Your task to perform on an android device: turn off smart reply in the gmail app Image 0: 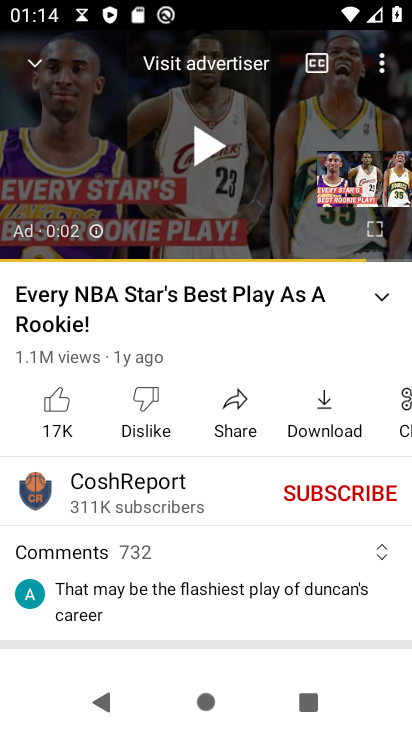
Step 0: press home button
Your task to perform on an android device: turn off smart reply in the gmail app Image 1: 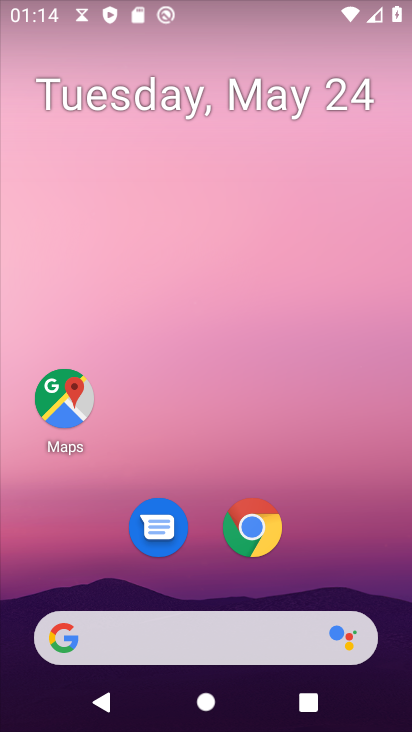
Step 1: drag from (171, 651) to (304, 218)
Your task to perform on an android device: turn off smart reply in the gmail app Image 2: 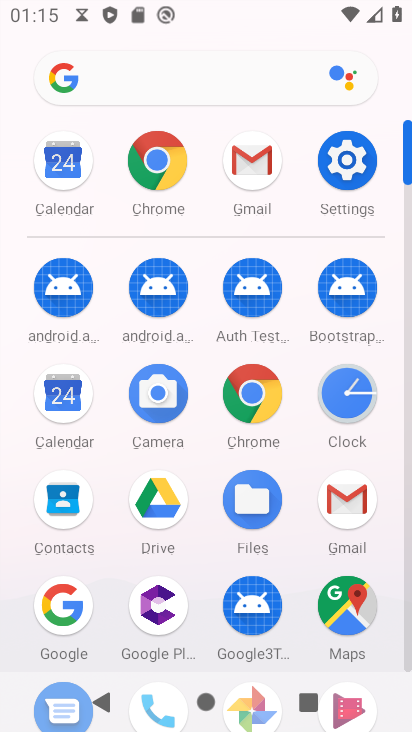
Step 2: click (245, 170)
Your task to perform on an android device: turn off smart reply in the gmail app Image 3: 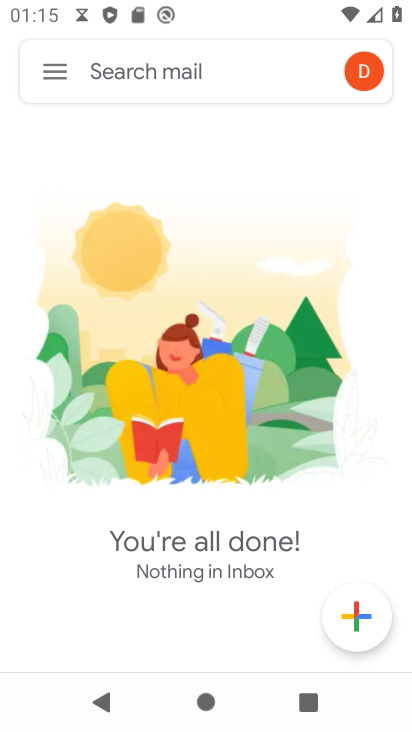
Step 3: click (67, 75)
Your task to perform on an android device: turn off smart reply in the gmail app Image 4: 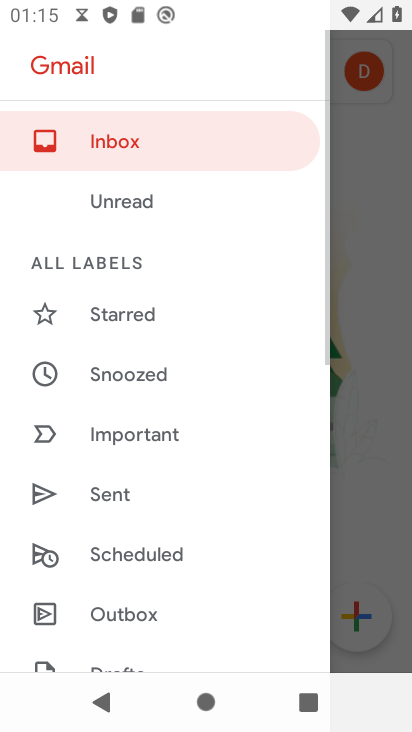
Step 4: drag from (198, 658) to (356, 267)
Your task to perform on an android device: turn off smart reply in the gmail app Image 5: 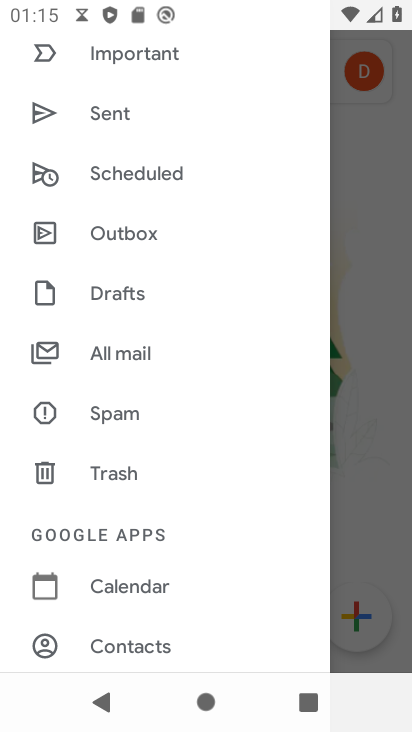
Step 5: drag from (202, 602) to (248, 408)
Your task to perform on an android device: turn off smart reply in the gmail app Image 6: 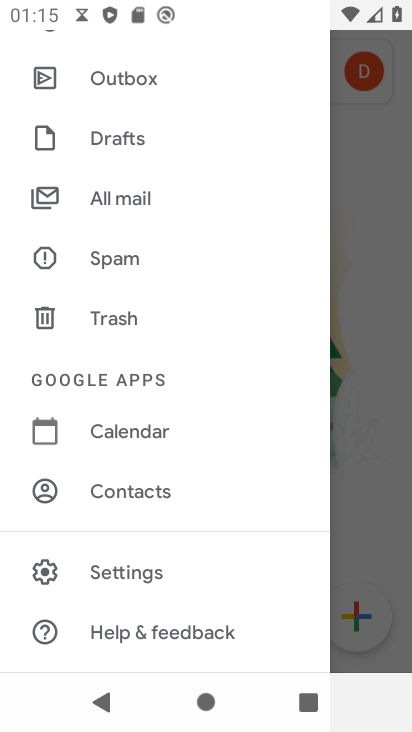
Step 6: drag from (165, 571) to (214, 277)
Your task to perform on an android device: turn off smart reply in the gmail app Image 7: 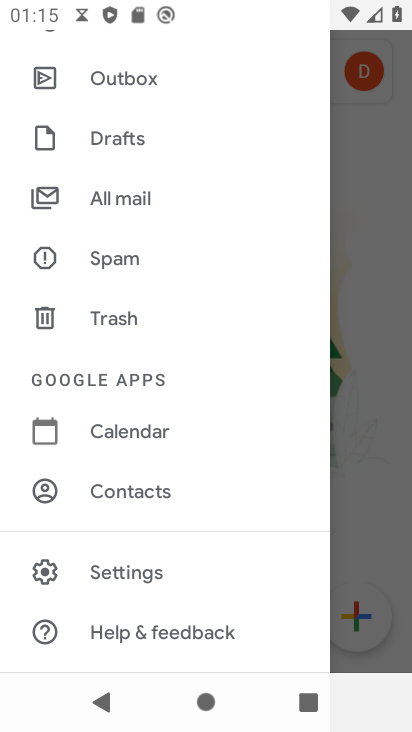
Step 7: click (103, 571)
Your task to perform on an android device: turn off smart reply in the gmail app Image 8: 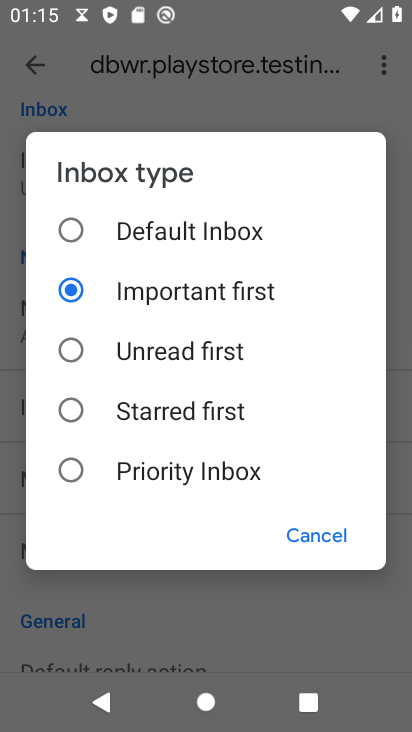
Step 8: click (293, 533)
Your task to perform on an android device: turn off smart reply in the gmail app Image 9: 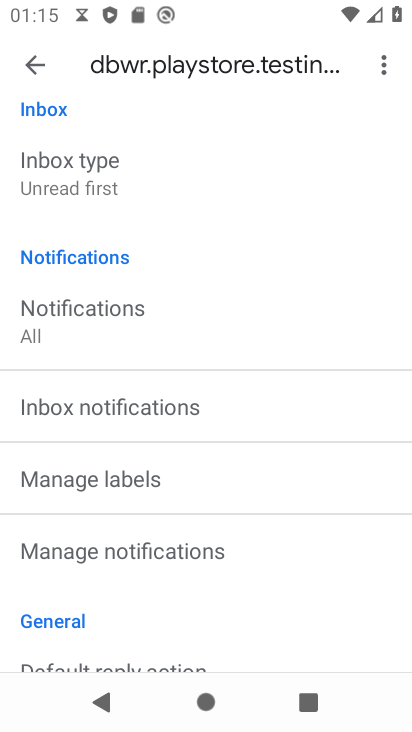
Step 9: drag from (137, 630) to (270, 244)
Your task to perform on an android device: turn off smart reply in the gmail app Image 10: 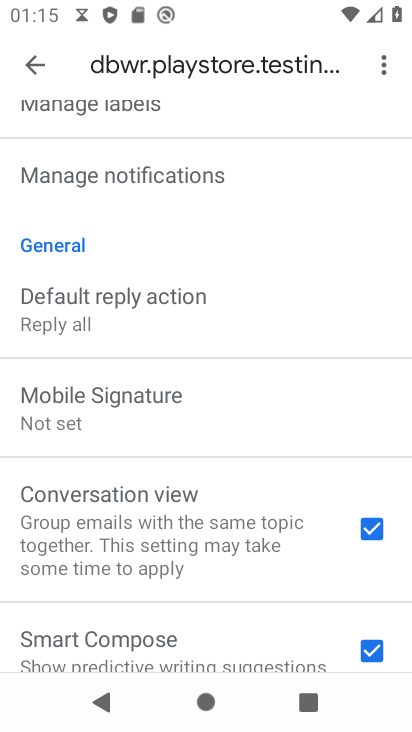
Step 10: drag from (270, 244) to (262, 345)
Your task to perform on an android device: turn off smart reply in the gmail app Image 11: 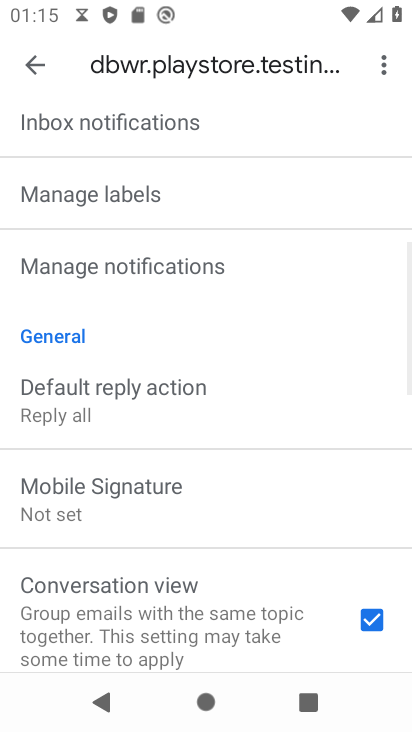
Step 11: drag from (258, 335) to (239, 369)
Your task to perform on an android device: turn off smart reply in the gmail app Image 12: 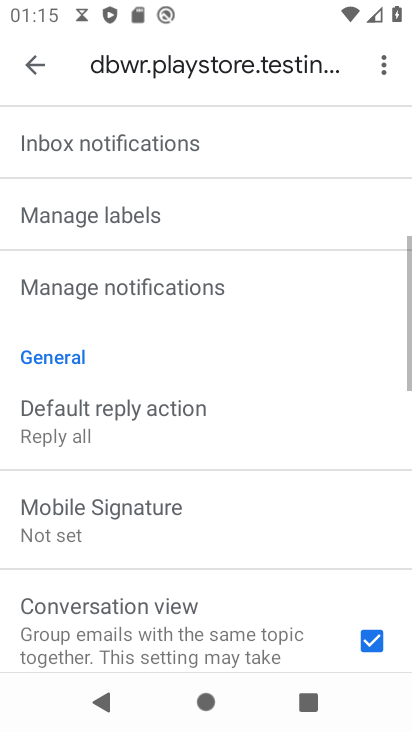
Step 12: drag from (239, 369) to (204, 497)
Your task to perform on an android device: turn off smart reply in the gmail app Image 13: 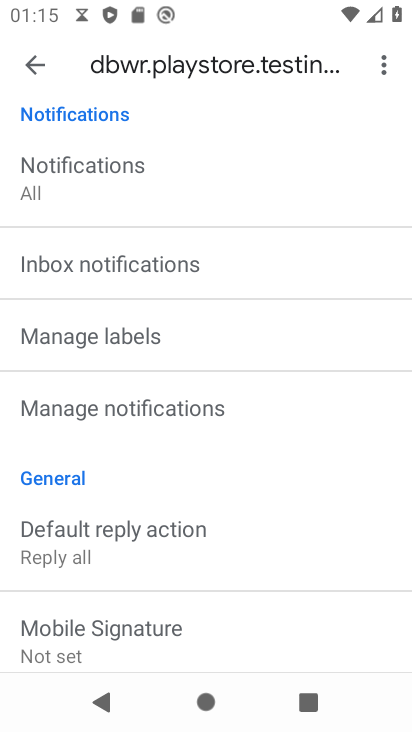
Step 13: drag from (201, 566) to (301, 264)
Your task to perform on an android device: turn off smart reply in the gmail app Image 14: 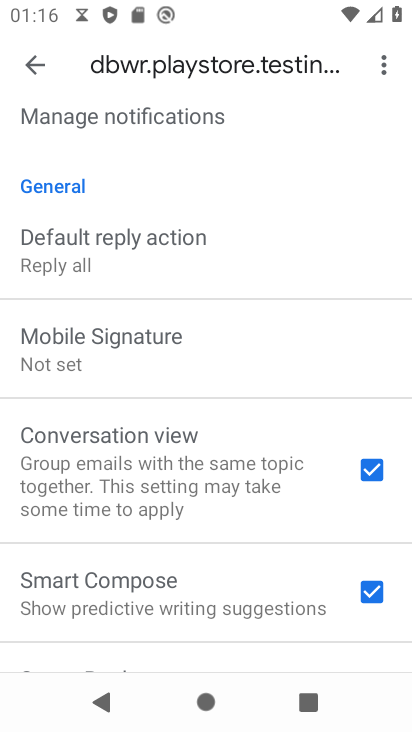
Step 14: drag from (225, 521) to (322, 241)
Your task to perform on an android device: turn off smart reply in the gmail app Image 15: 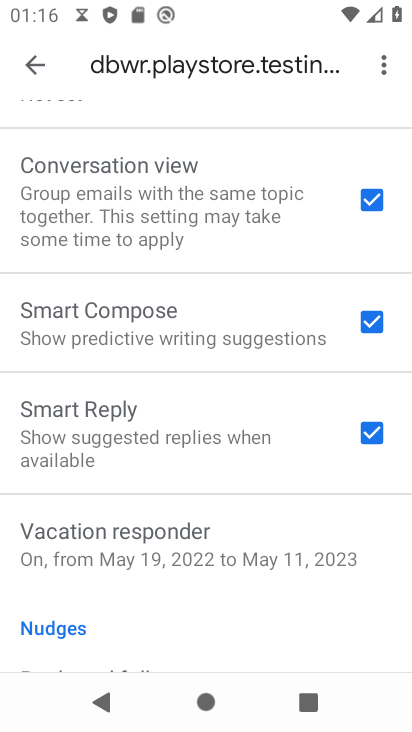
Step 15: click (371, 428)
Your task to perform on an android device: turn off smart reply in the gmail app Image 16: 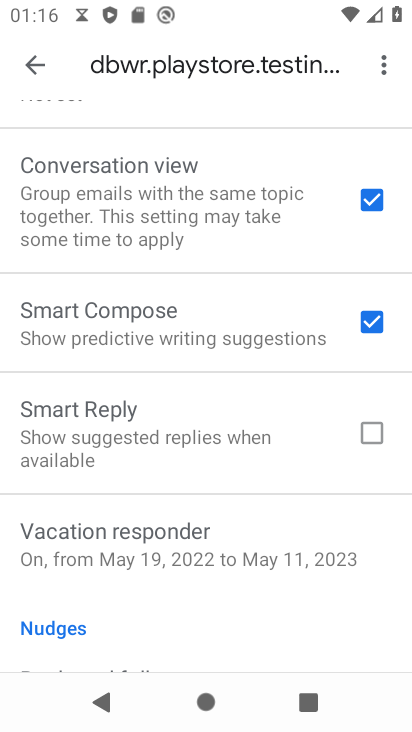
Step 16: task complete